Your task to perform on an android device: read, delete, or share a saved page in the chrome app Image 0: 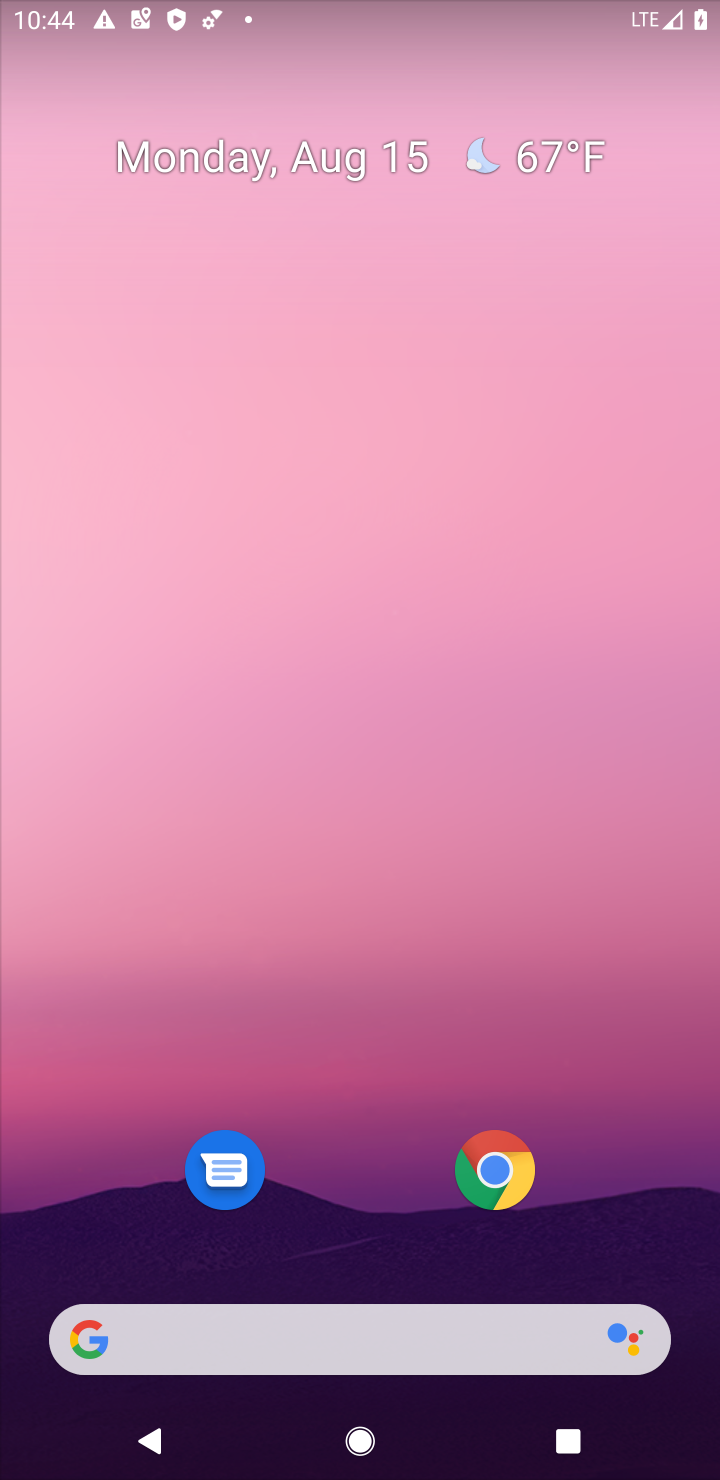
Step 0: drag from (404, 1246) to (439, 61)
Your task to perform on an android device: read, delete, or share a saved page in the chrome app Image 1: 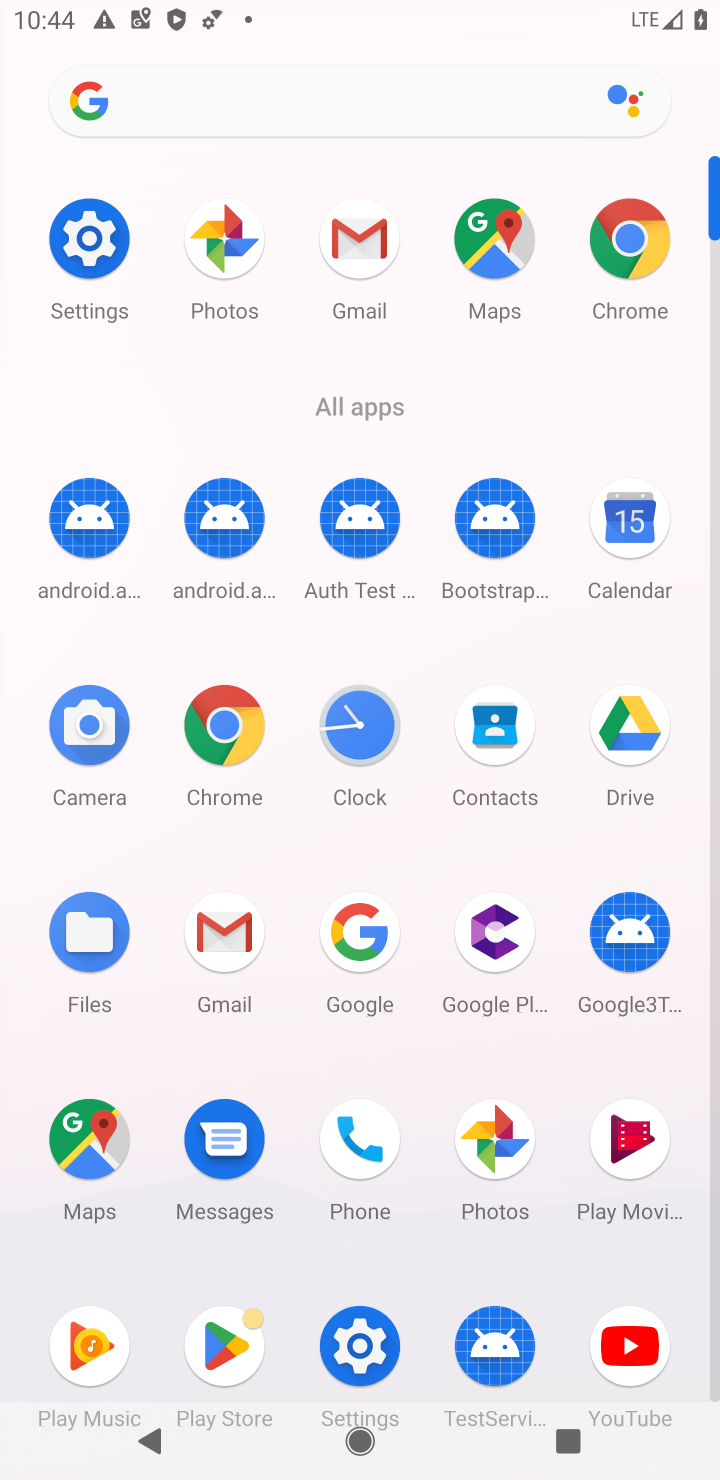
Step 1: click (211, 706)
Your task to perform on an android device: read, delete, or share a saved page in the chrome app Image 2: 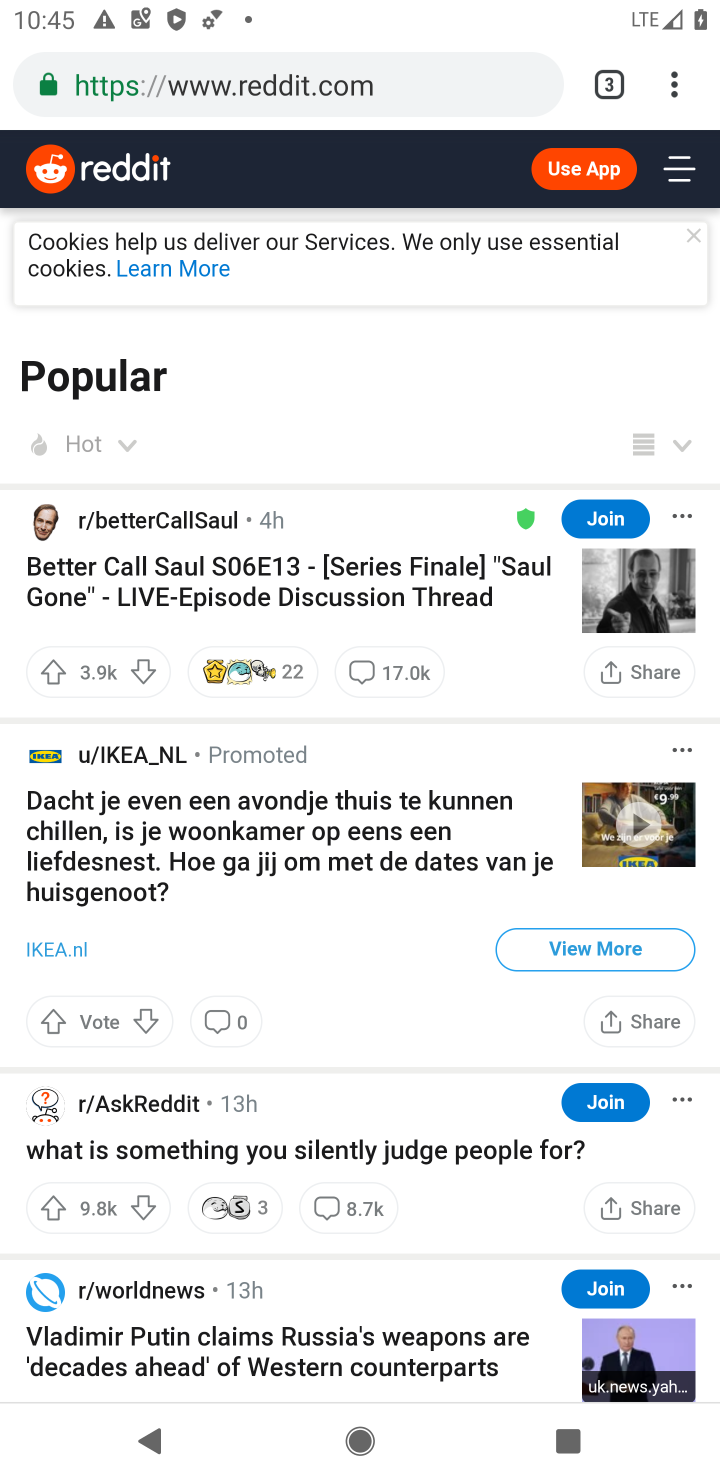
Step 2: click (682, 78)
Your task to perform on an android device: read, delete, or share a saved page in the chrome app Image 3: 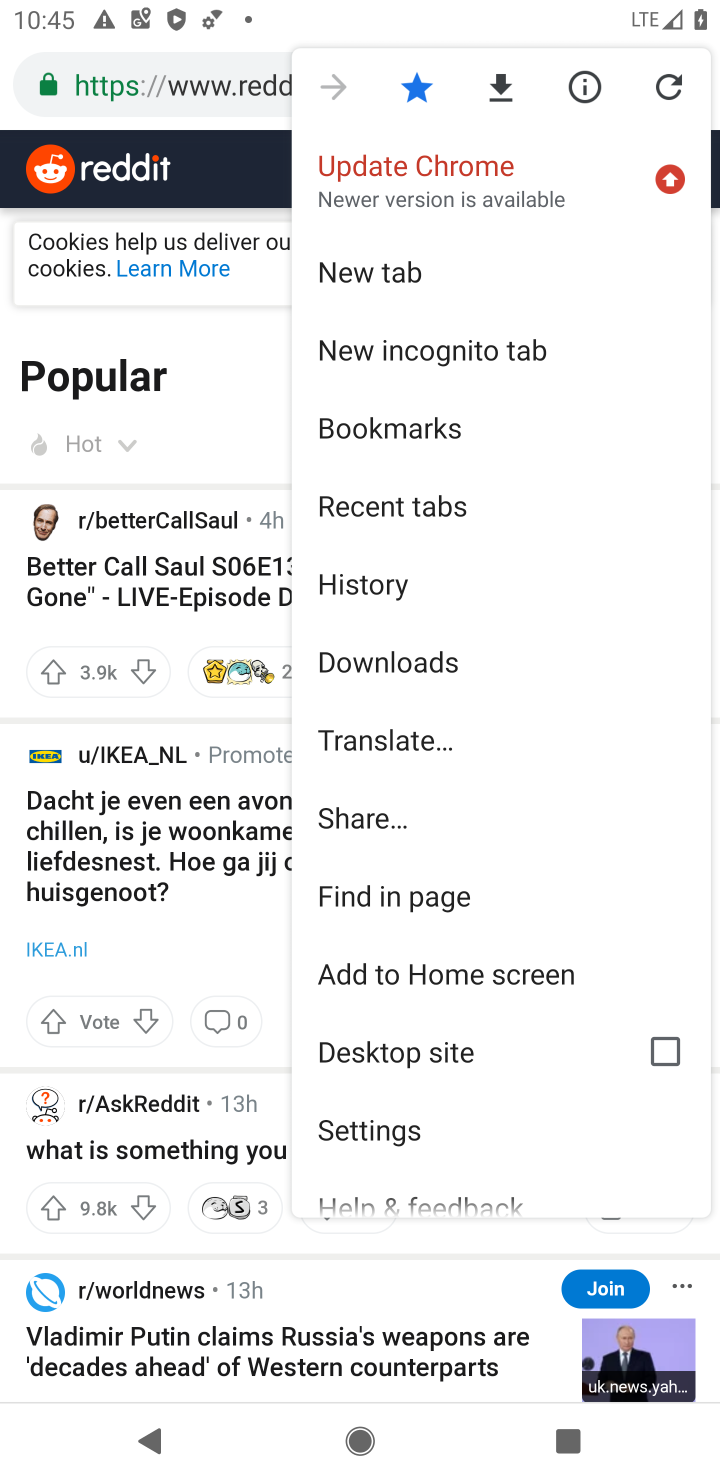
Step 3: click (477, 648)
Your task to perform on an android device: read, delete, or share a saved page in the chrome app Image 4: 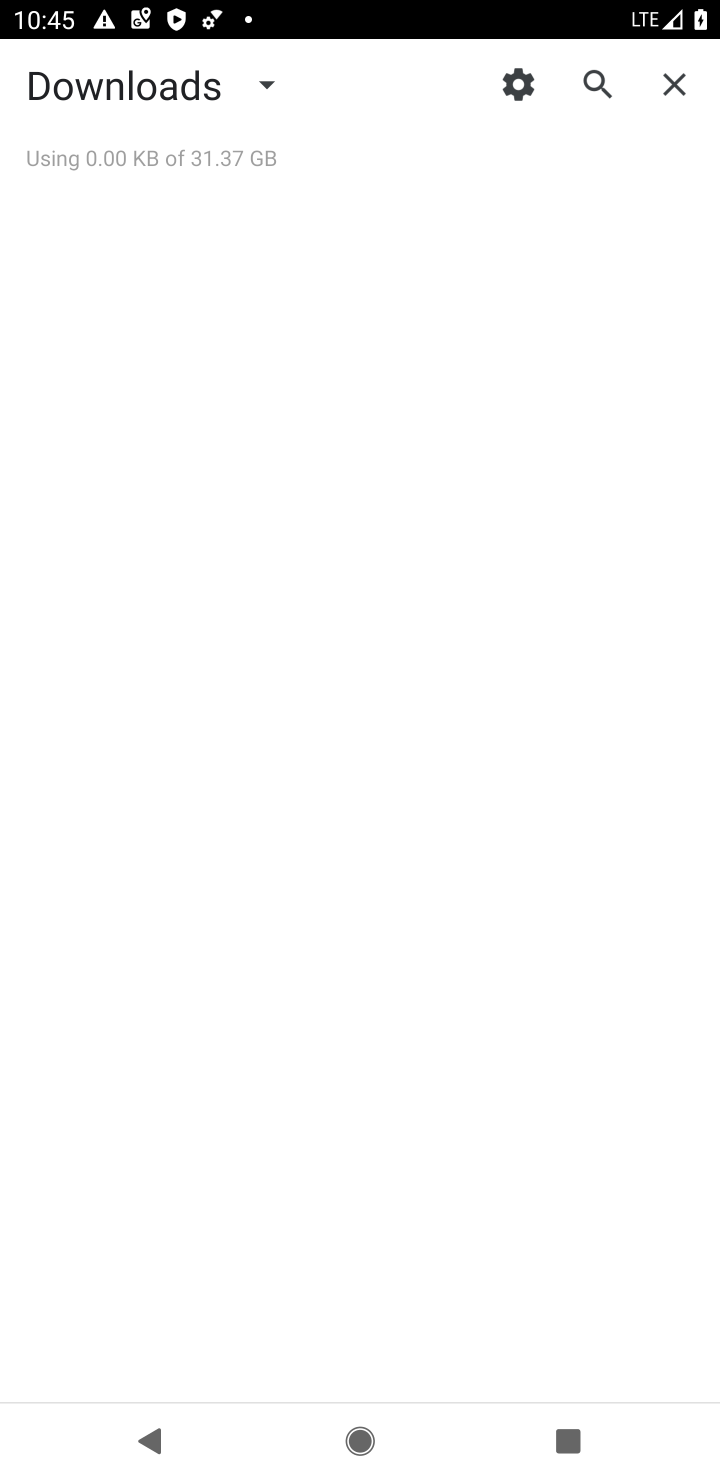
Step 4: task complete